Your task to perform on an android device: move a message to another label in the gmail app Image 0: 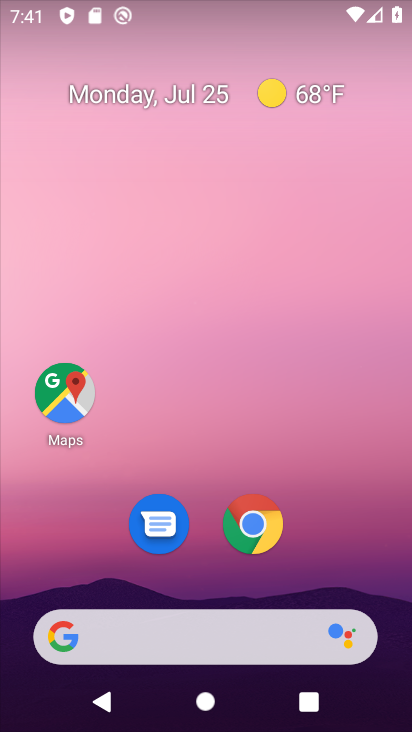
Step 0: drag from (330, 520) to (345, 6)
Your task to perform on an android device: move a message to another label in the gmail app Image 1: 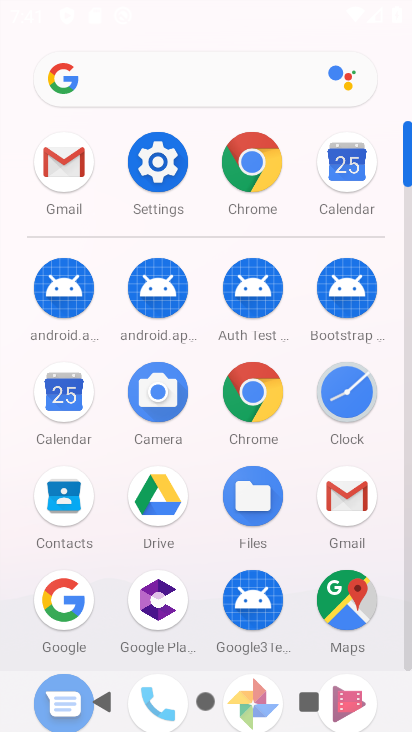
Step 1: click (75, 161)
Your task to perform on an android device: move a message to another label in the gmail app Image 2: 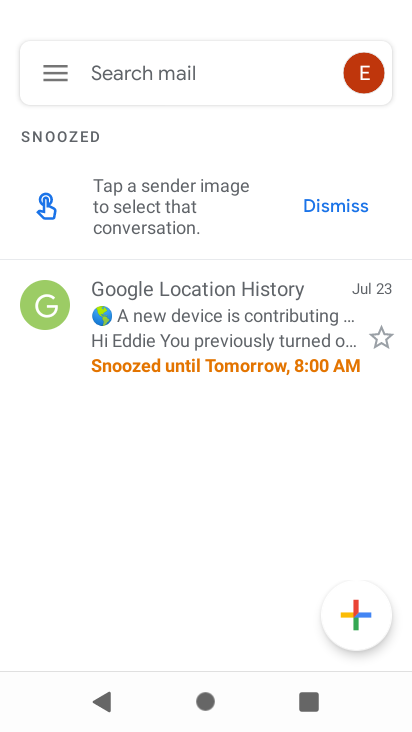
Step 2: click (60, 75)
Your task to perform on an android device: move a message to another label in the gmail app Image 3: 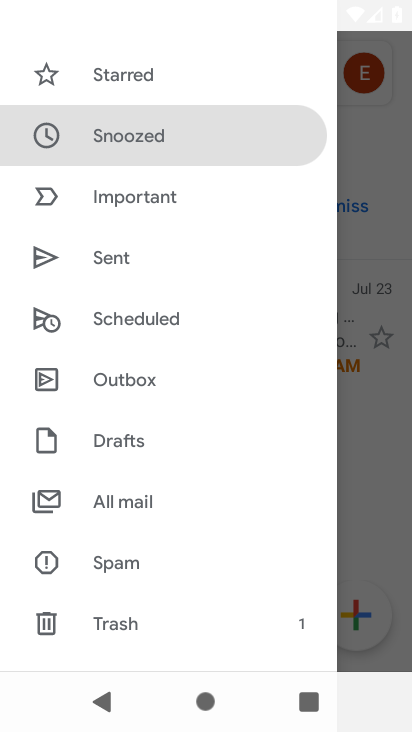
Step 3: click (141, 506)
Your task to perform on an android device: move a message to another label in the gmail app Image 4: 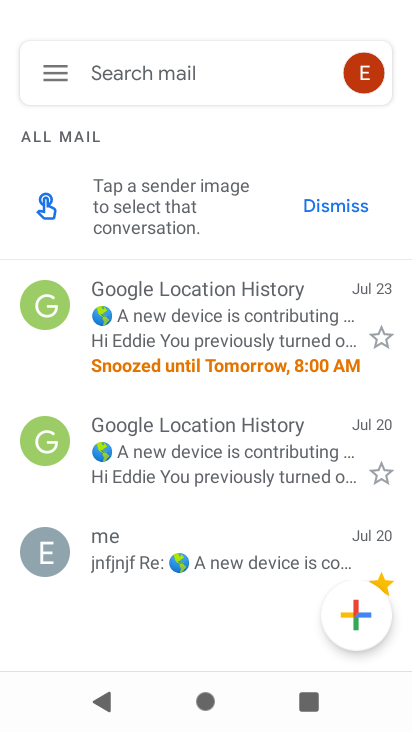
Step 4: click (57, 75)
Your task to perform on an android device: move a message to another label in the gmail app Image 5: 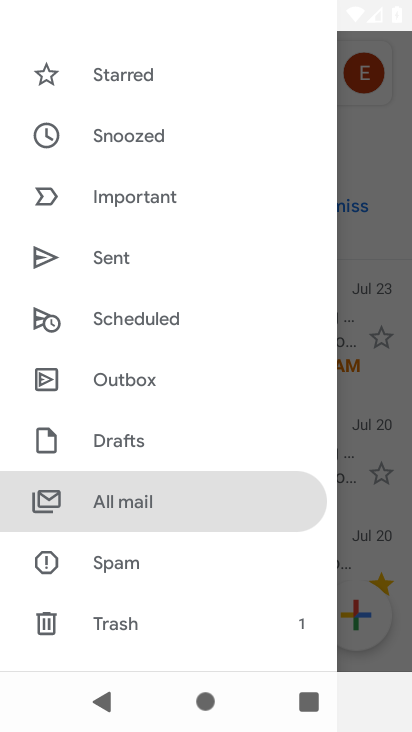
Step 5: click (119, 616)
Your task to perform on an android device: move a message to another label in the gmail app Image 6: 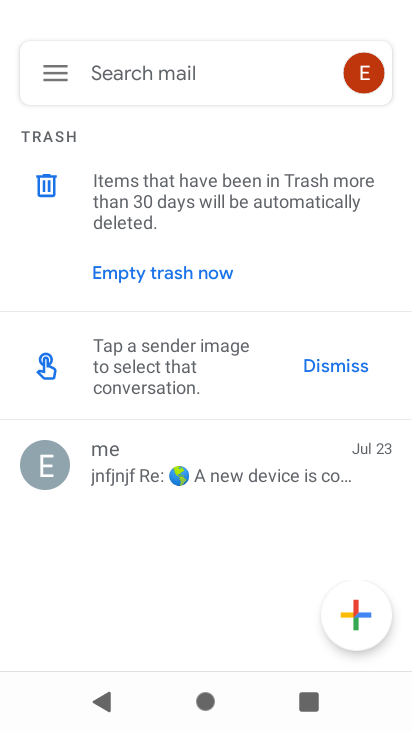
Step 6: click (250, 462)
Your task to perform on an android device: move a message to another label in the gmail app Image 7: 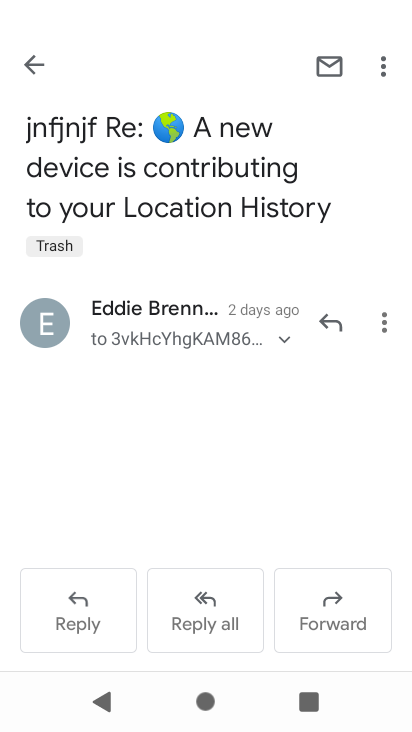
Step 7: click (379, 60)
Your task to perform on an android device: move a message to another label in the gmail app Image 8: 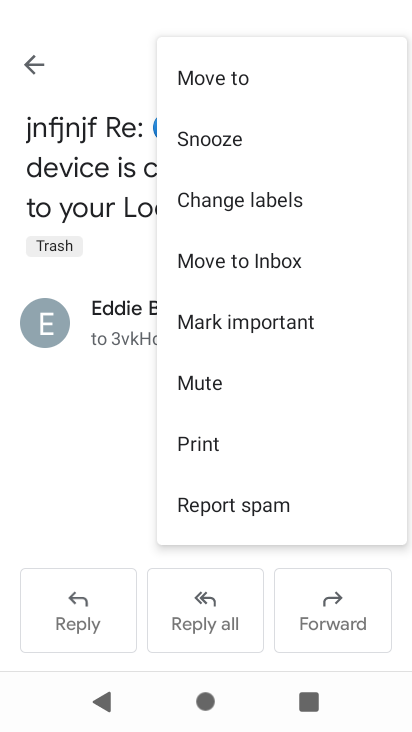
Step 8: click (263, 194)
Your task to perform on an android device: move a message to another label in the gmail app Image 9: 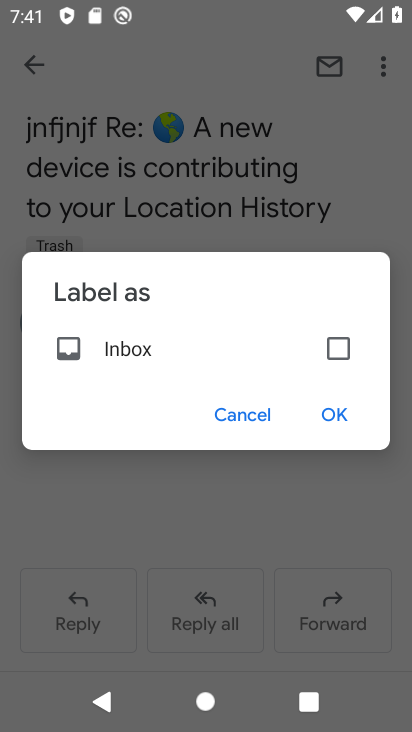
Step 9: click (238, 412)
Your task to perform on an android device: move a message to another label in the gmail app Image 10: 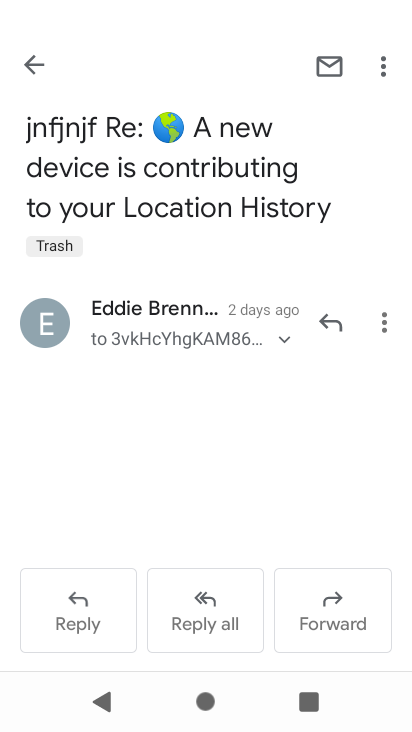
Step 10: click (380, 62)
Your task to perform on an android device: move a message to another label in the gmail app Image 11: 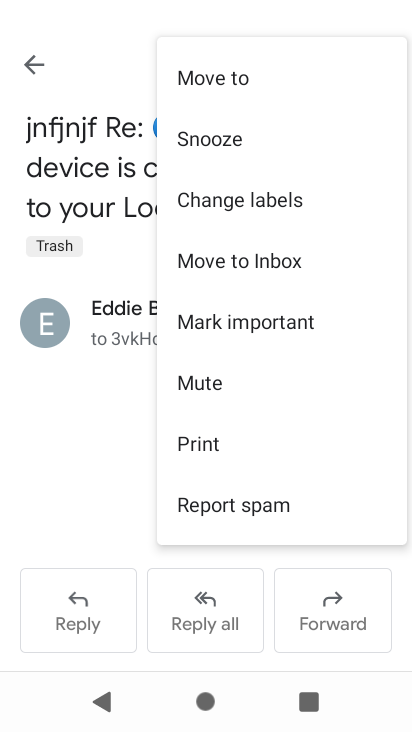
Step 11: click (239, 69)
Your task to perform on an android device: move a message to another label in the gmail app Image 12: 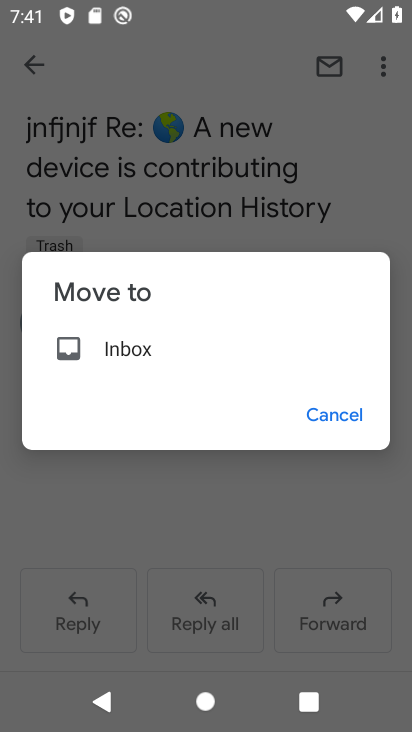
Step 12: click (74, 350)
Your task to perform on an android device: move a message to another label in the gmail app Image 13: 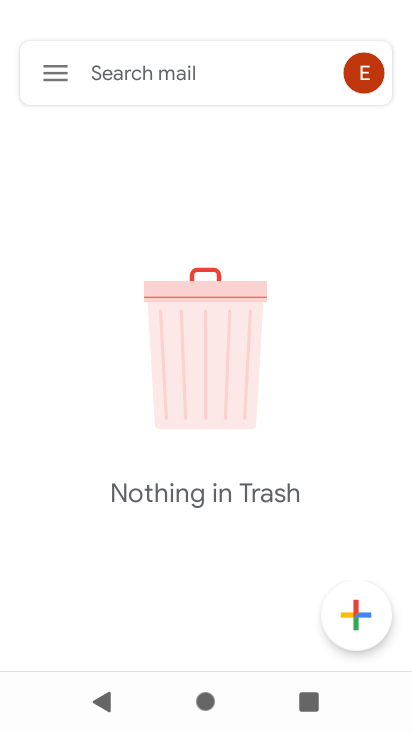
Step 13: task complete